Your task to perform on an android device: Open Chrome and go to the settings page Image 0: 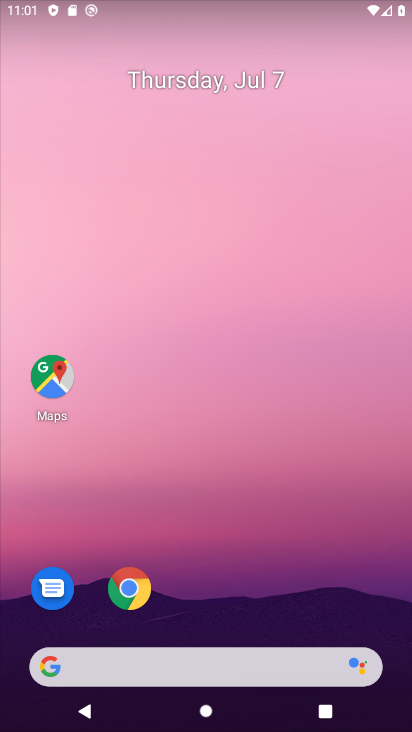
Step 0: click (128, 590)
Your task to perform on an android device: Open Chrome and go to the settings page Image 1: 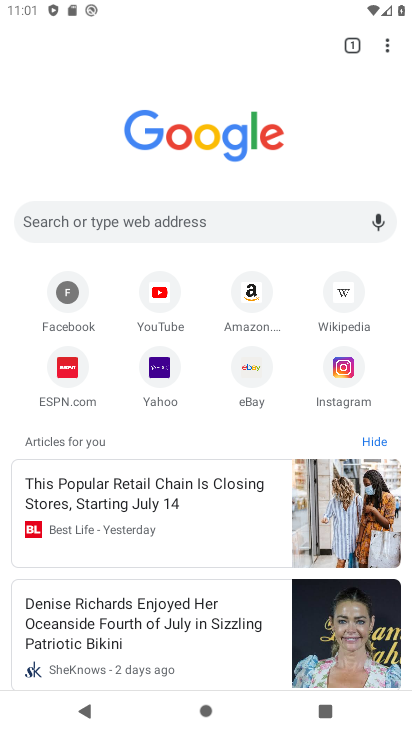
Step 1: click (385, 44)
Your task to perform on an android device: Open Chrome and go to the settings page Image 2: 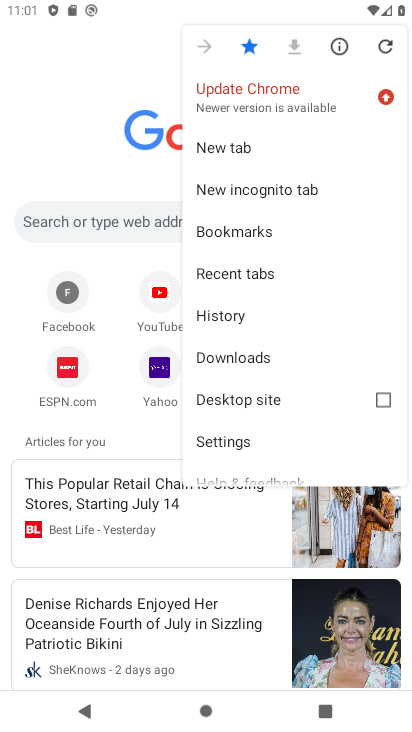
Step 2: click (224, 440)
Your task to perform on an android device: Open Chrome and go to the settings page Image 3: 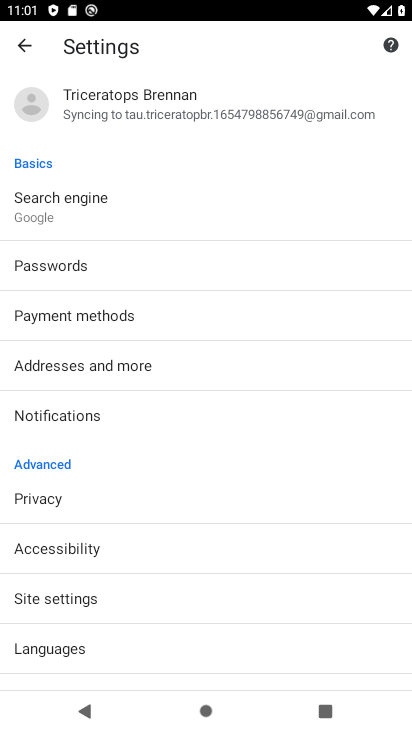
Step 3: task complete